Your task to perform on an android device: Toggle the flashlight Image 0: 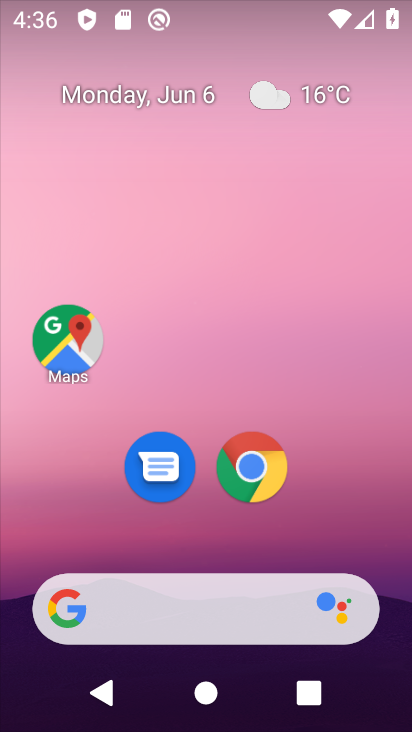
Step 0: drag from (192, 516) to (273, 116)
Your task to perform on an android device: Toggle the flashlight Image 1: 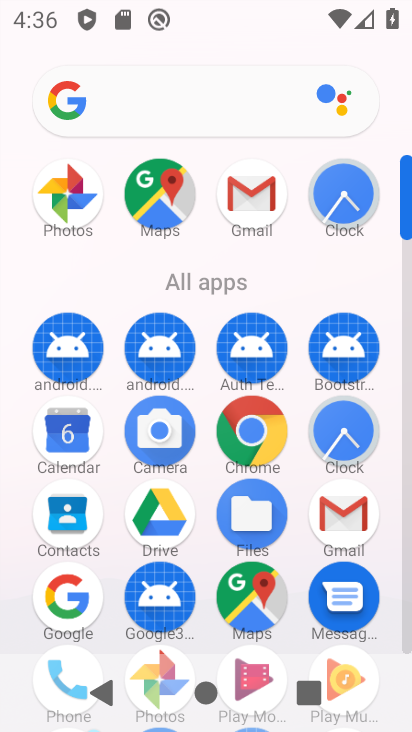
Step 1: task complete